Your task to perform on an android device: turn on the 24-hour format for clock Image 0: 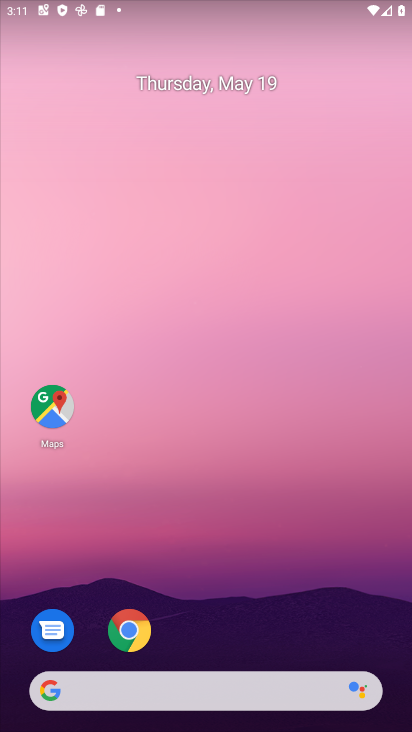
Step 0: drag from (400, 651) to (318, 83)
Your task to perform on an android device: turn on the 24-hour format for clock Image 1: 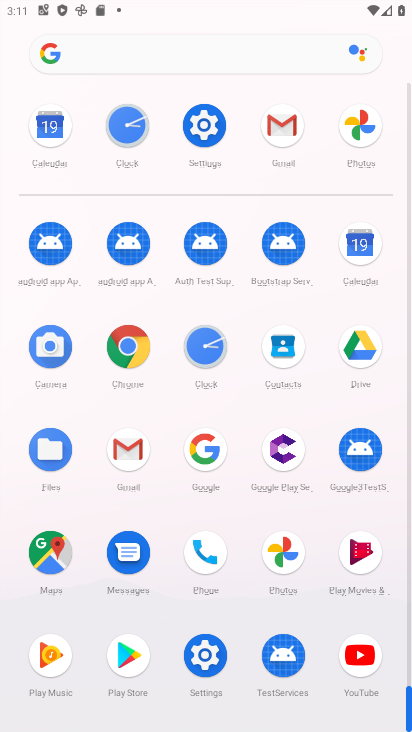
Step 1: click (200, 345)
Your task to perform on an android device: turn on the 24-hour format for clock Image 2: 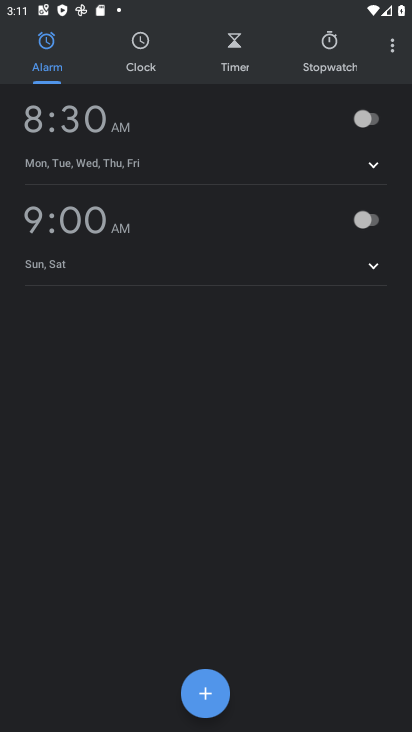
Step 2: click (391, 48)
Your task to perform on an android device: turn on the 24-hour format for clock Image 3: 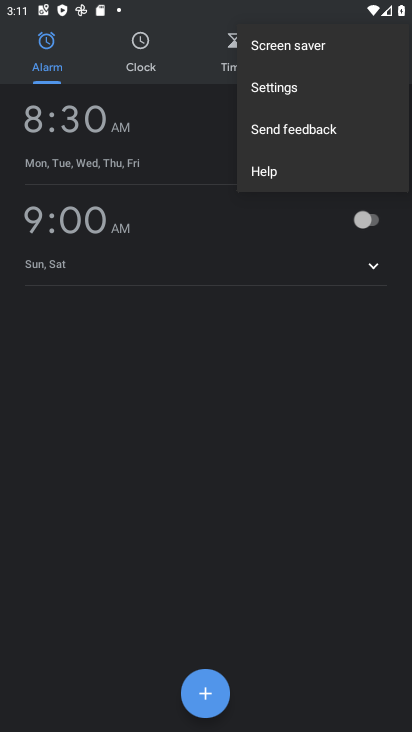
Step 3: click (261, 85)
Your task to perform on an android device: turn on the 24-hour format for clock Image 4: 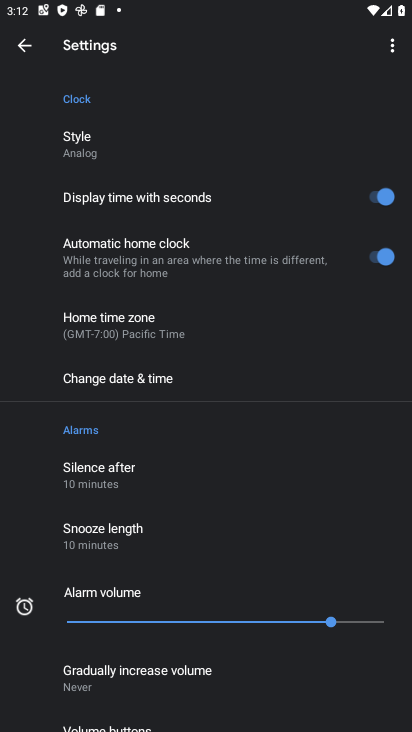
Step 4: click (164, 378)
Your task to perform on an android device: turn on the 24-hour format for clock Image 5: 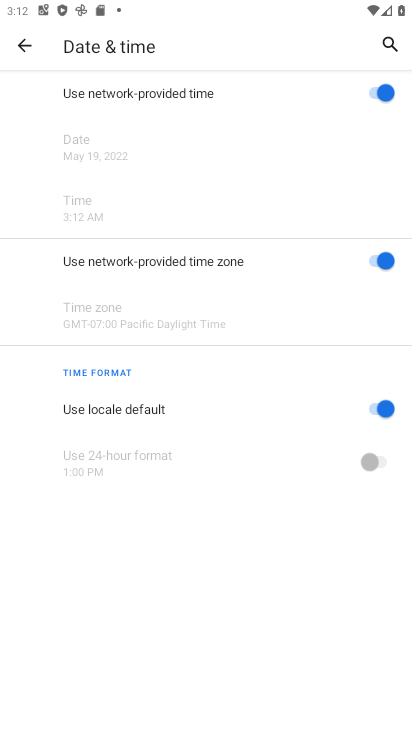
Step 5: click (369, 408)
Your task to perform on an android device: turn on the 24-hour format for clock Image 6: 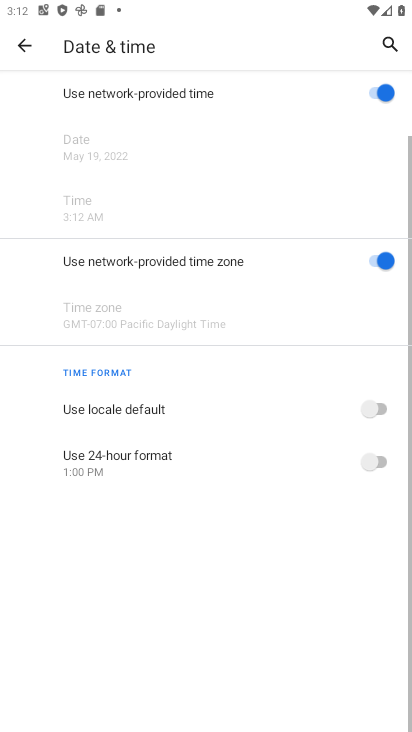
Step 6: click (382, 459)
Your task to perform on an android device: turn on the 24-hour format for clock Image 7: 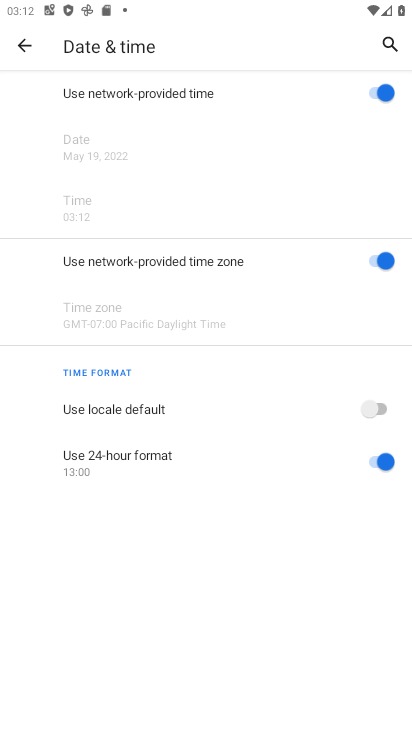
Step 7: task complete